Your task to perform on an android device: Go to settings Image 0: 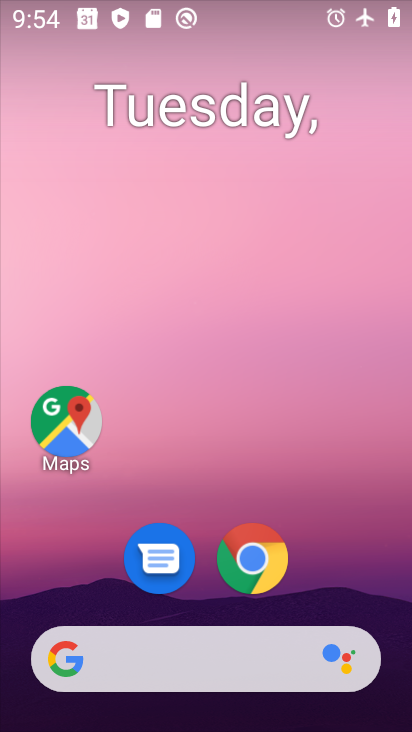
Step 0: drag from (402, 666) to (123, 96)
Your task to perform on an android device: Go to settings Image 1: 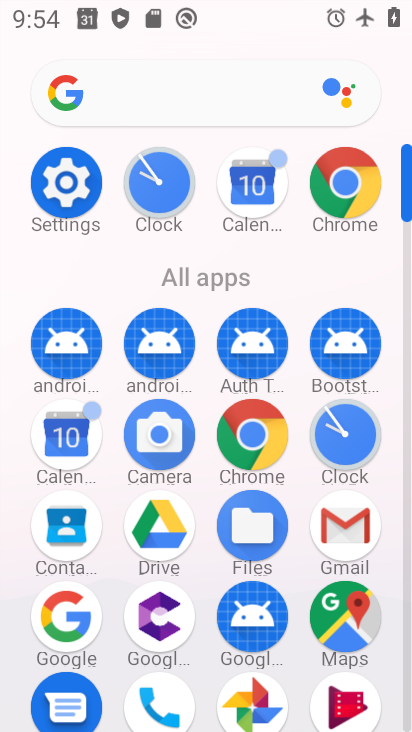
Step 1: click (62, 195)
Your task to perform on an android device: Go to settings Image 2: 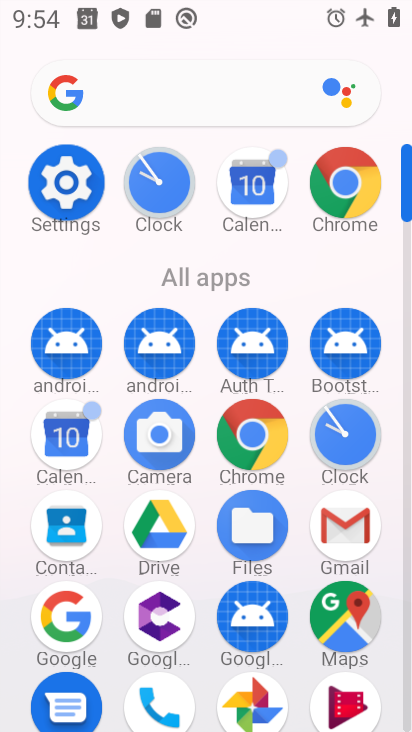
Step 2: click (62, 195)
Your task to perform on an android device: Go to settings Image 3: 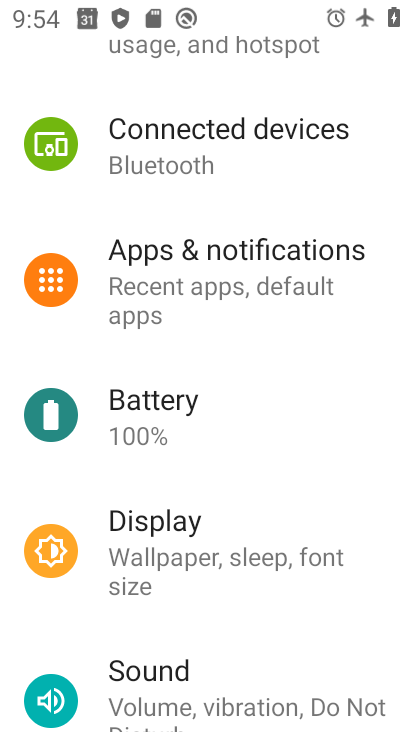
Step 3: task complete